Your task to perform on an android device: Open Youtube and go to "Your channel" Image 0: 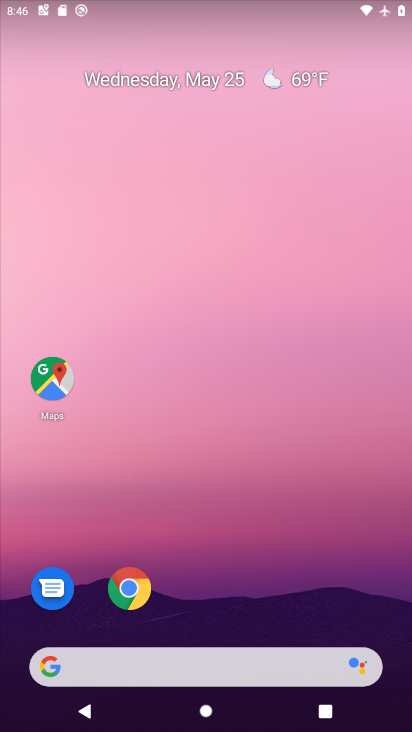
Step 0: drag from (323, 581) to (293, 287)
Your task to perform on an android device: Open Youtube and go to "Your channel" Image 1: 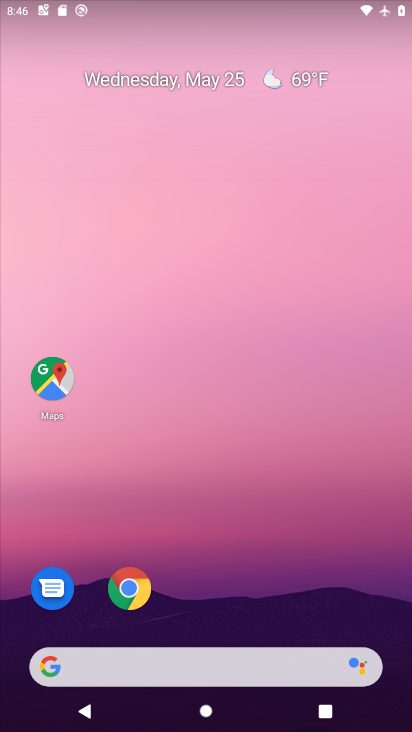
Step 1: drag from (292, 624) to (298, 191)
Your task to perform on an android device: Open Youtube and go to "Your channel" Image 2: 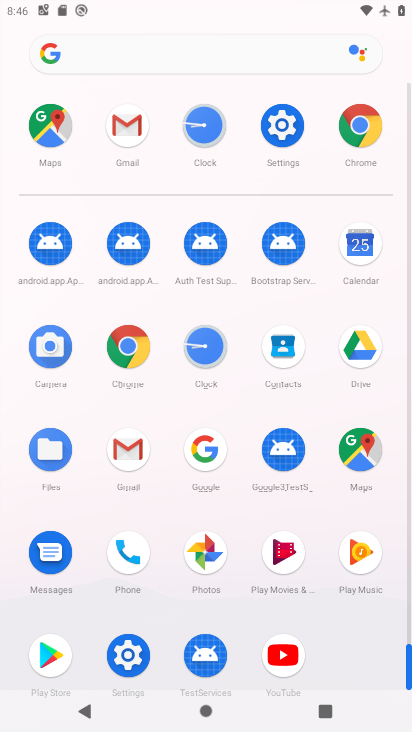
Step 2: click (291, 652)
Your task to perform on an android device: Open Youtube and go to "Your channel" Image 3: 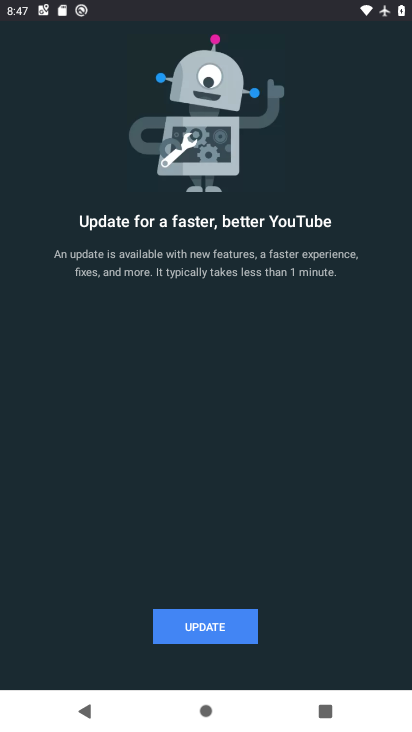
Step 3: click (237, 627)
Your task to perform on an android device: Open Youtube and go to "Your channel" Image 4: 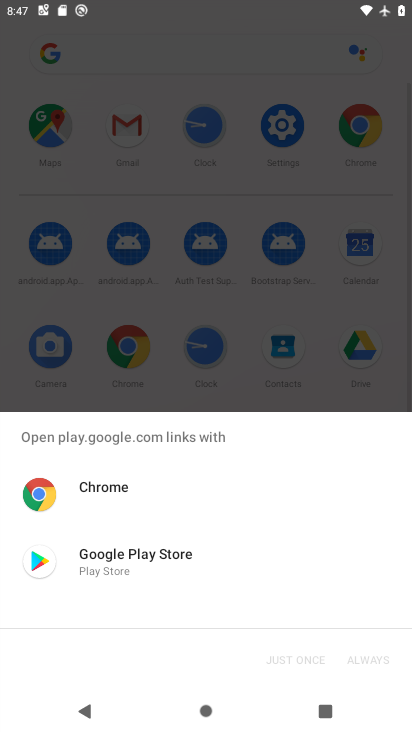
Step 4: click (142, 564)
Your task to perform on an android device: Open Youtube and go to "Your channel" Image 5: 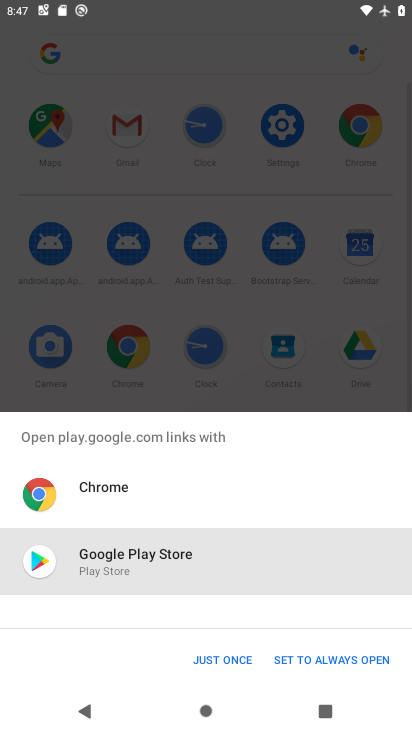
Step 5: click (255, 656)
Your task to perform on an android device: Open Youtube and go to "Your channel" Image 6: 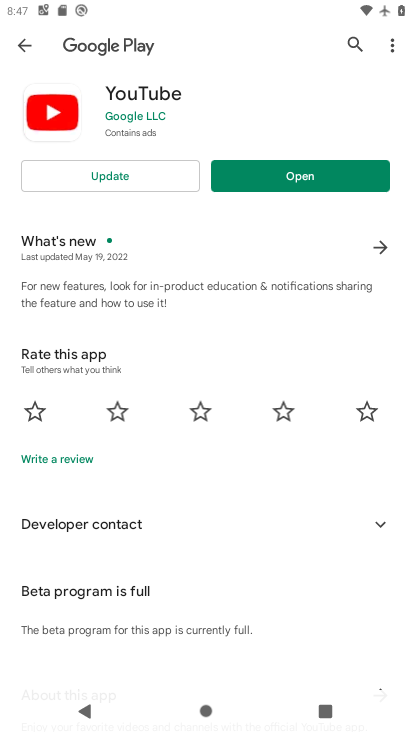
Step 6: click (241, 678)
Your task to perform on an android device: Open Youtube and go to "Your channel" Image 7: 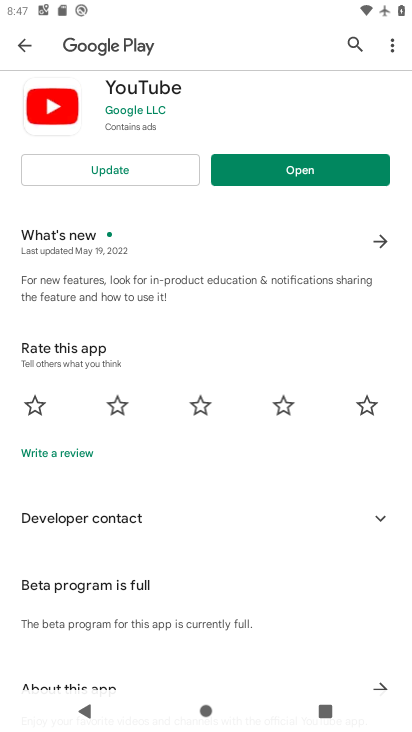
Step 7: click (231, 652)
Your task to perform on an android device: Open Youtube and go to "Your channel" Image 8: 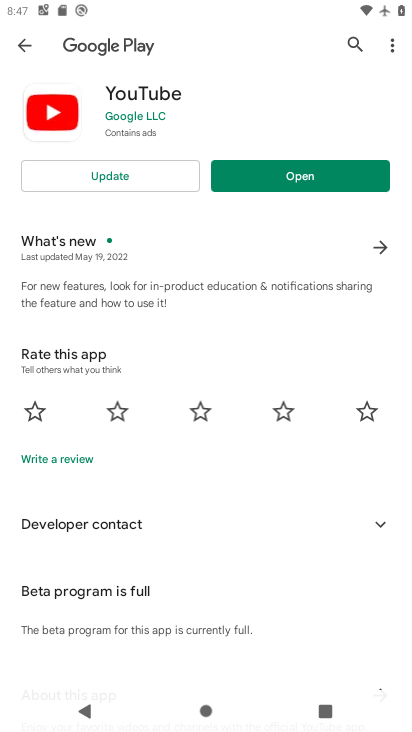
Step 8: drag from (248, 574) to (246, 626)
Your task to perform on an android device: Open Youtube and go to "Your channel" Image 9: 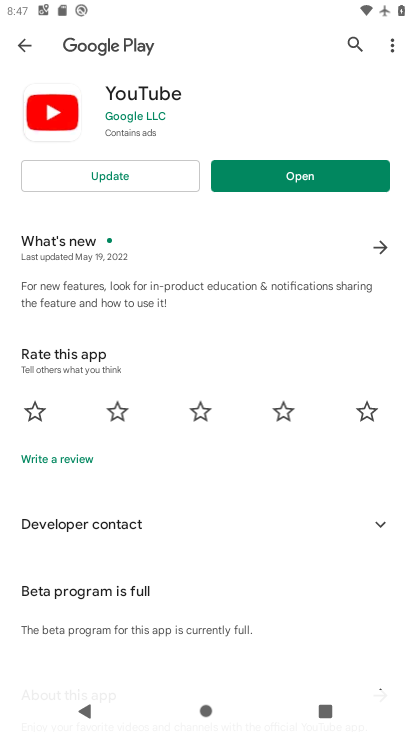
Step 9: drag from (306, 582) to (319, 477)
Your task to perform on an android device: Open Youtube and go to "Your channel" Image 10: 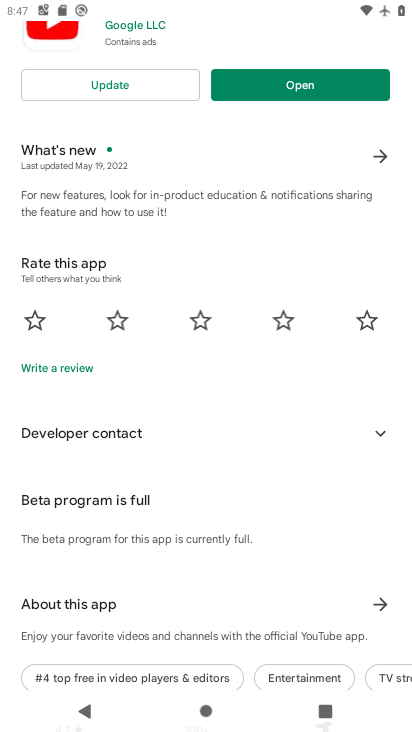
Step 10: click (314, 75)
Your task to perform on an android device: Open Youtube and go to "Your channel" Image 11: 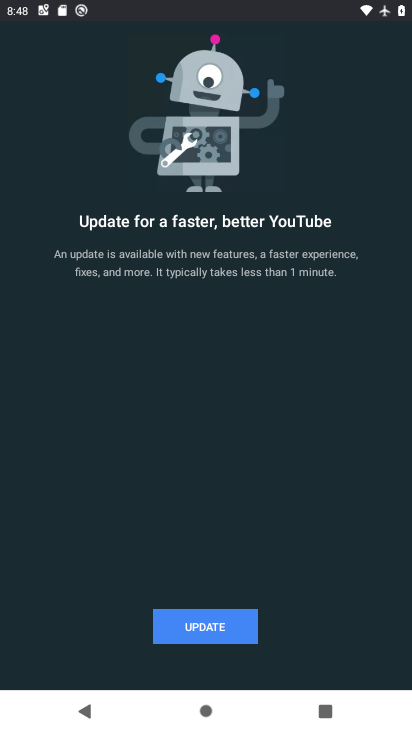
Step 11: press back button
Your task to perform on an android device: Open Youtube and go to "Your channel" Image 12: 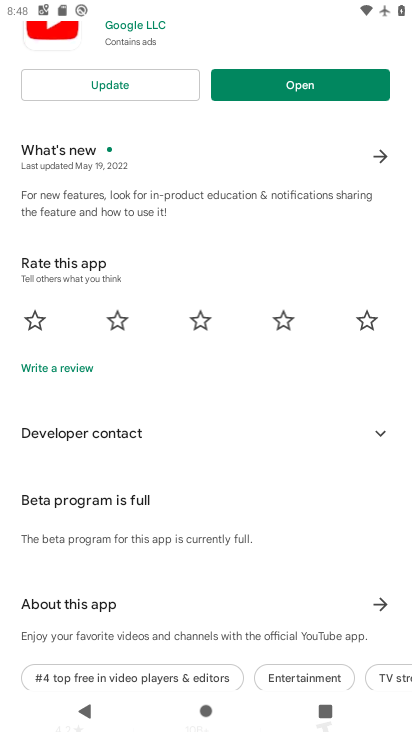
Step 12: click (284, 67)
Your task to perform on an android device: Open Youtube and go to "Your channel" Image 13: 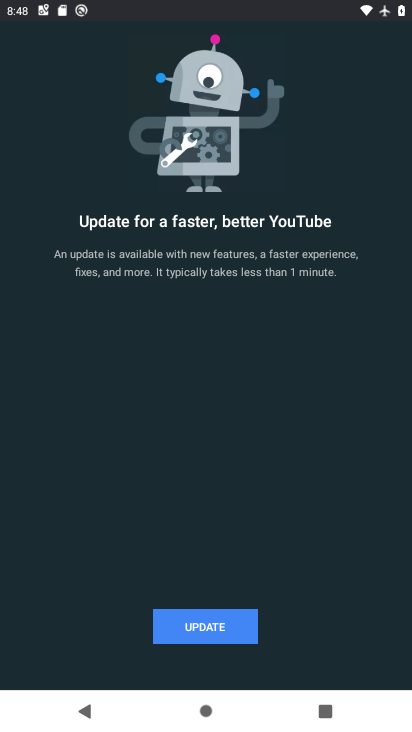
Step 13: click (223, 621)
Your task to perform on an android device: Open Youtube and go to "Your channel" Image 14: 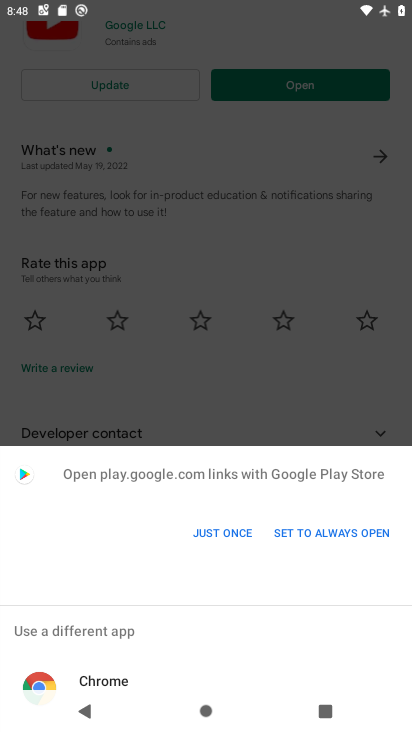
Step 14: click (243, 545)
Your task to perform on an android device: Open Youtube and go to "Your channel" Image 15: 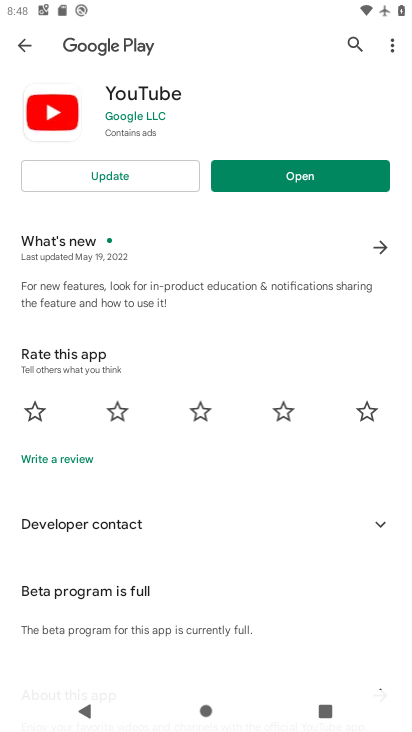
Step 15: click (125, 174)
Your task to perform on an android device: Open Youtube and go to "Your channel" Image 16: 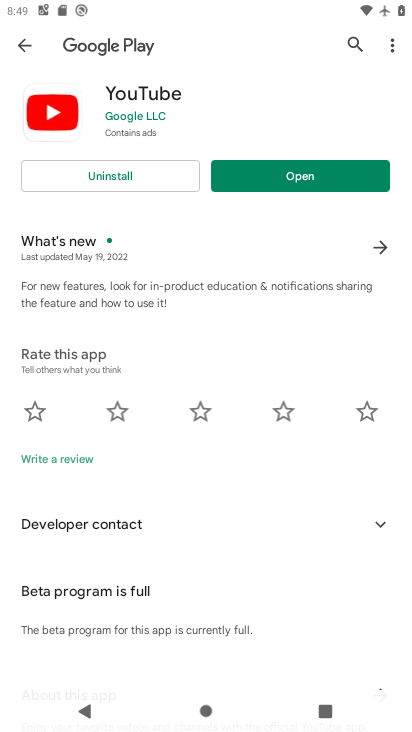
Step 16: drag from (266, 531) to (273, 433)
Your task to perform on an android device: Open Youtube and go to "Your channel" Image 17: 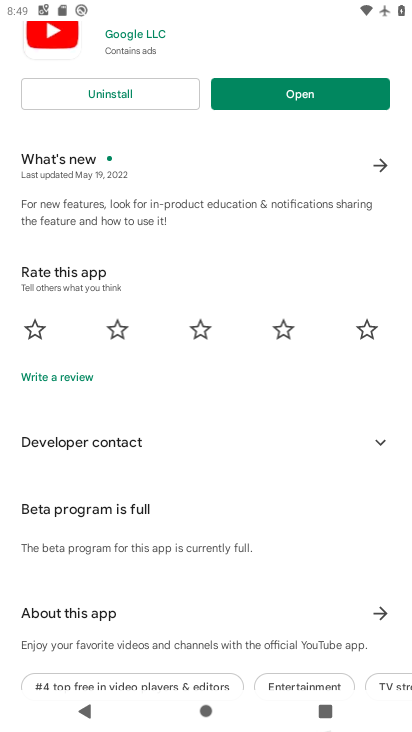
Step 17: click (313, 93)
Your task to perform on an android device: Open Youtube and go to "Your channel" Image 18: 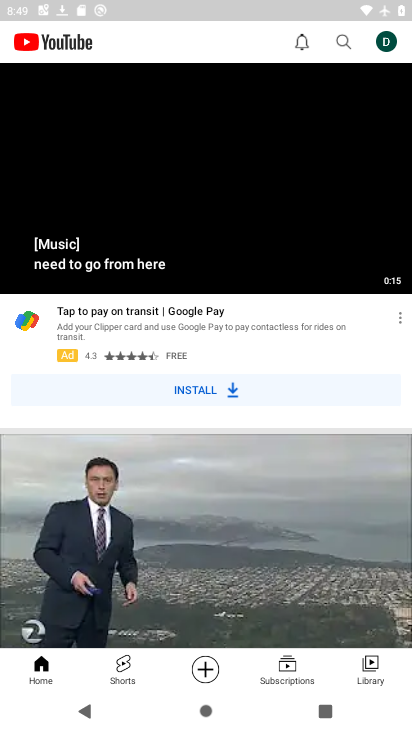
Step 18: click (375, 41)
Your task to perform on an android device: Open Youtube and go to "Your channel" Image 19: 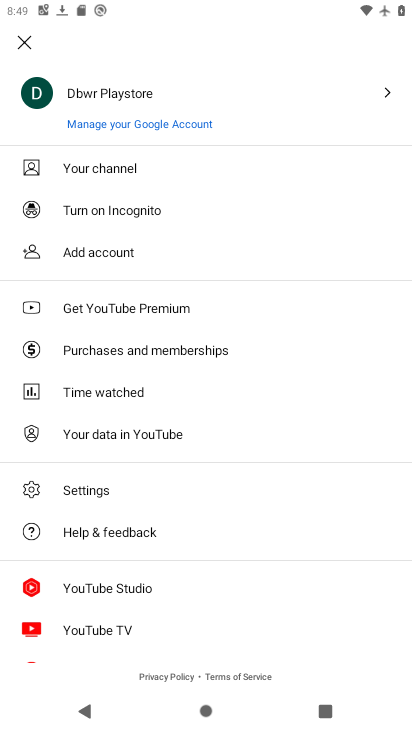
Step 19: click (119, 170)
Your task to perform on an android device: Open Youtube and go to "Your channel" Image 20: 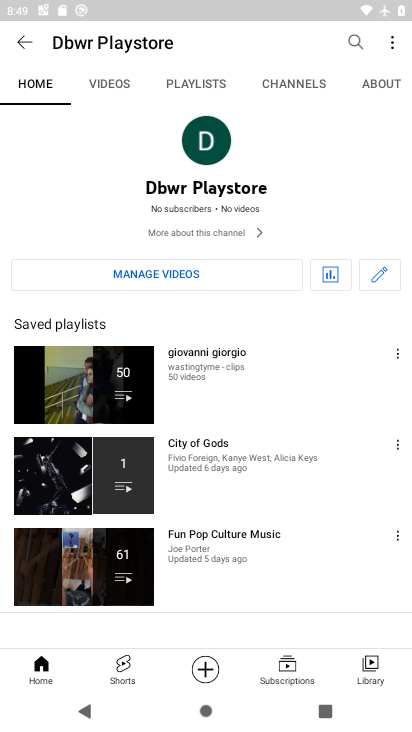
Step 20: task complete